Your task to perform on an android device: Search for pizza restaurants on Maps Image 0: 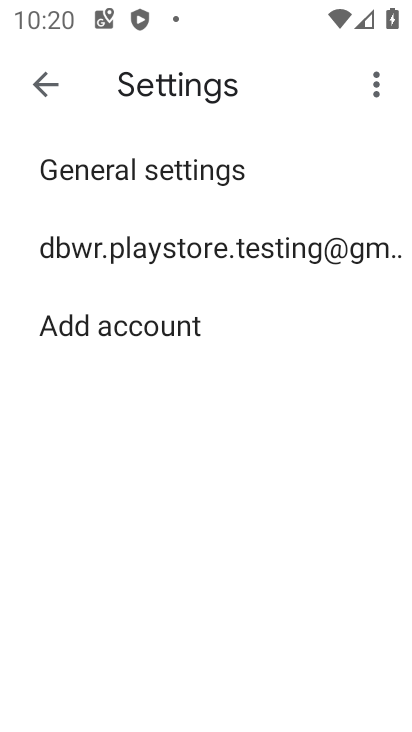
Step 0: press home button
Your task to perform on an android device: Search for pizza restaurants on Maps Image 1: 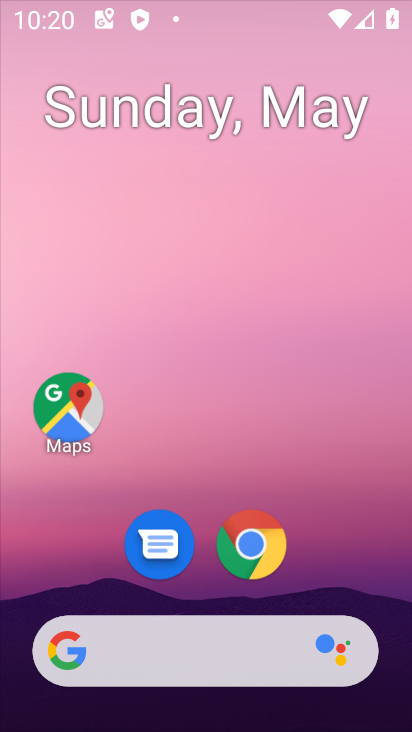
Step 1: drag from (334, 481) to (62, 2)
Your task to perform on an android device: Search for pizza restaurants on Maps Image 2: 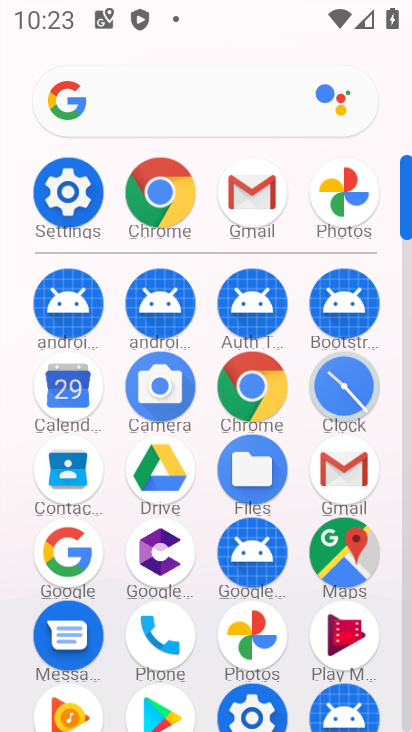
Step 2: click (335, 558)
Your task to perform on an android device: Search for pizza restaurants on Maps Image 3: 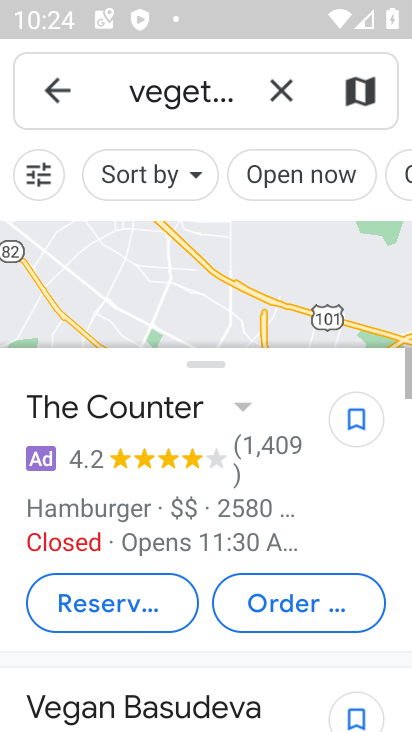
Step 3: click (282, 85)
Your task to perform on an android device: Search for pizza restaurants on Maps Image 4: 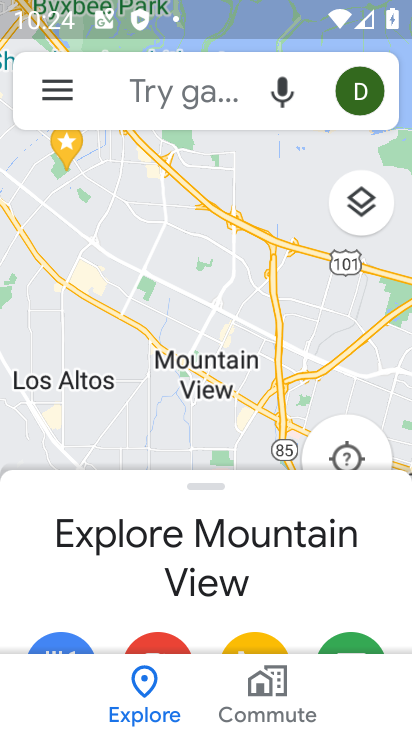
Step 4: click (217, 96)
Your task to perform on an android device: Search for pizza restaurants on Maps Image 5: 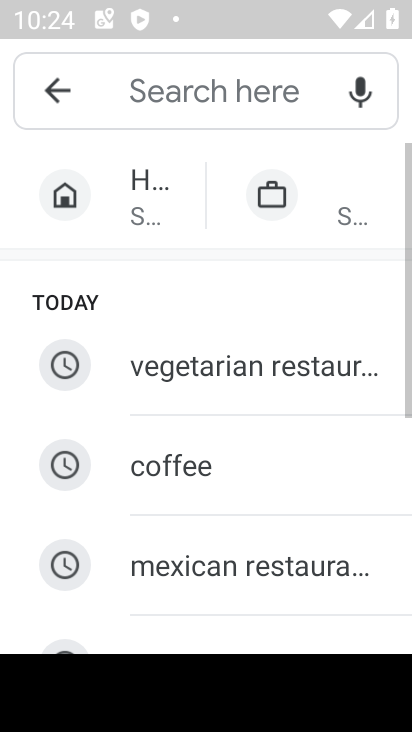
Step 5: drag from (231, 510) to (277, 182)
Your task to perform on an android device: Search for pizza restaurants on Maps Image 6: 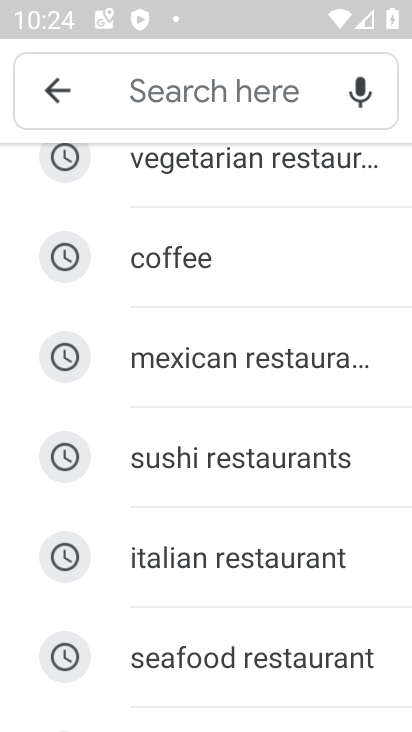
Step 6: drag from (228, 494) to (206, 176)
Your task to perform on an android device: Search for pizza restaurants on Maps Image 7: 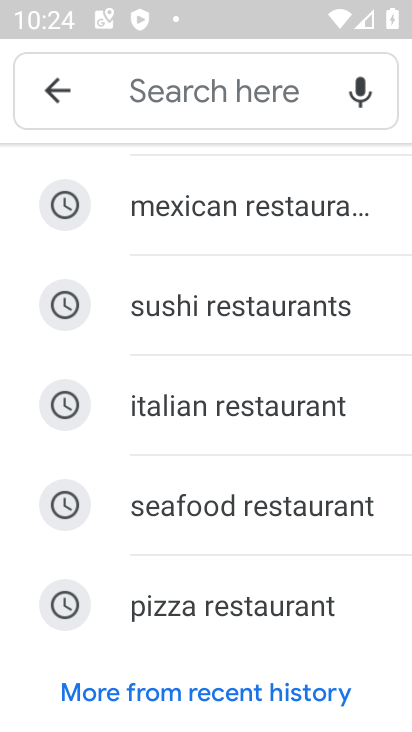
Step 7: click (144, 611)
Your task to perform on an android device: Search for pizza restaurants on Maps Image 8: 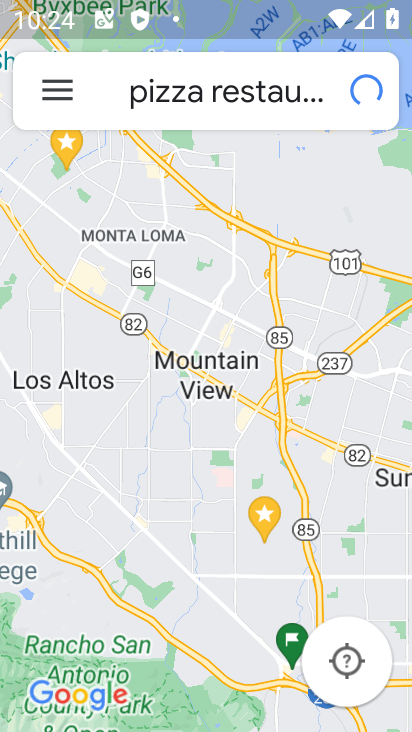
Step 8: task complete